Your task to perform on an android device: turn on wifi Image 0: 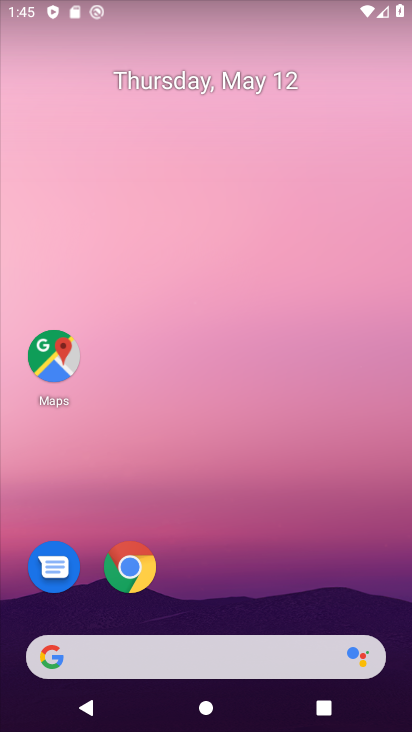
Step 0: drag from (221, 636) to (240, 229)
Your task to perform on an android device: turn on wifi Image 1: 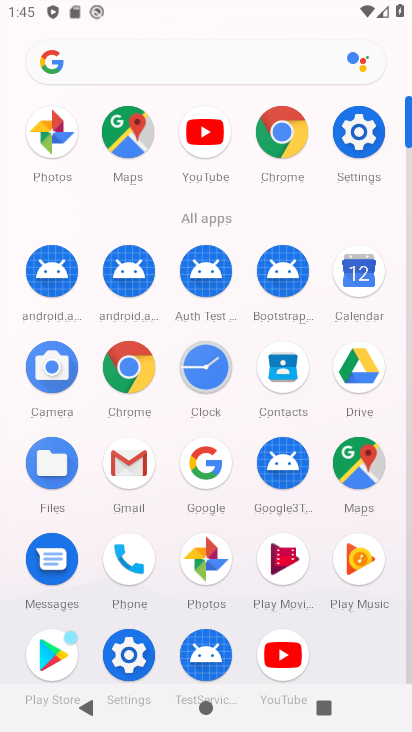
Step 1: click (372, 136)
Your task to perform on an android device: turn on wifi Image 2: 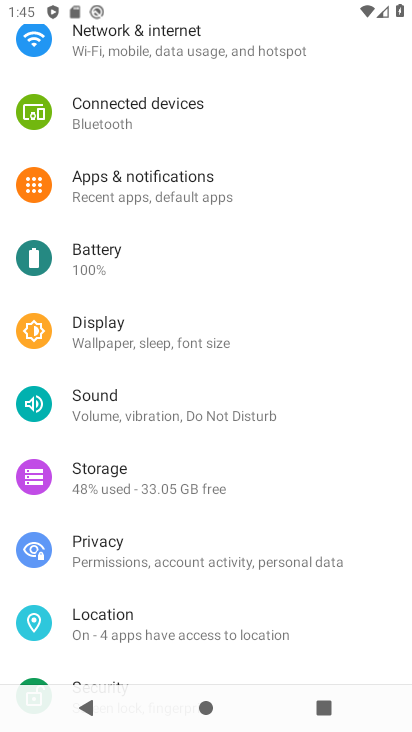
Step 2: drag from (195, 34) to (201, 489)
Your task to perform on an android device: turn on wifi Image 3: 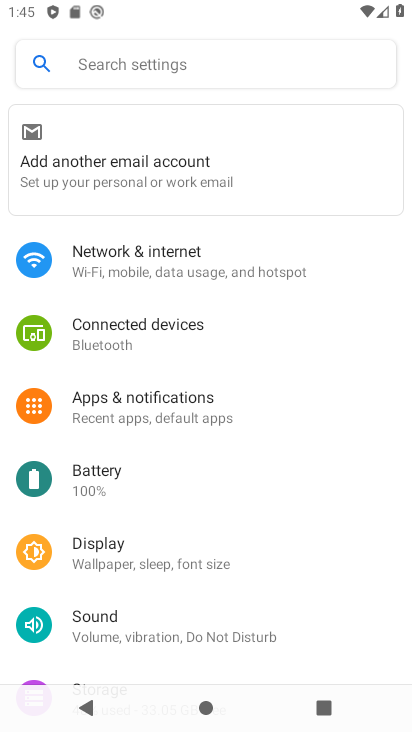
Step 3: click (140, 256)
Your task to perform on an android device: turn on wifi Image 4: 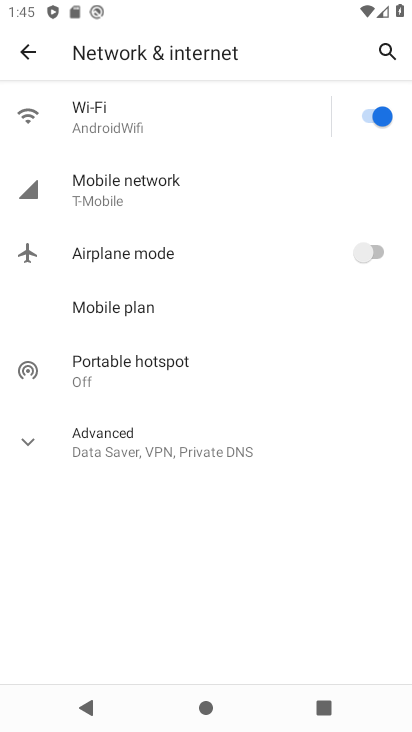
Step 4: task complete